Your task to perform on an android device: Open Reddit.com Image 0: 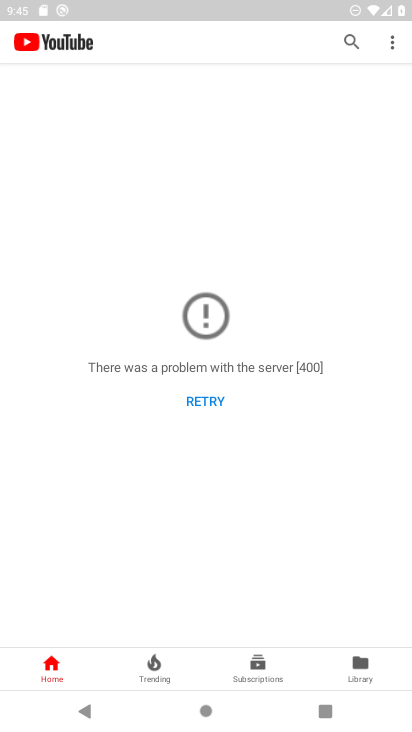
Step 0: press home button
Your task to perform on an android device: Open Reddit.com Image 1: 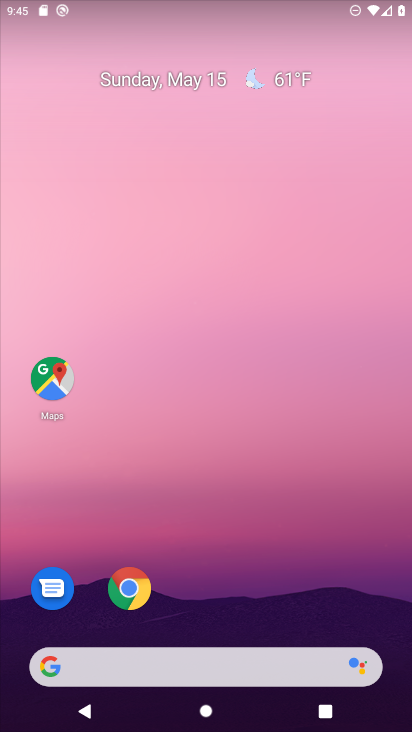
Step 1: click (142, 588)
Your task to perform on an android device: Open Reddit.com Image 2: 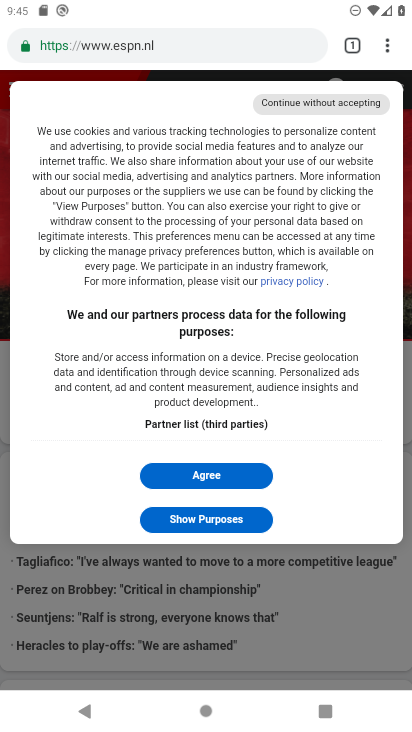
Step 2: click (211, 46)
Your task to perform on an android device: Open Reddit.com Image 3: 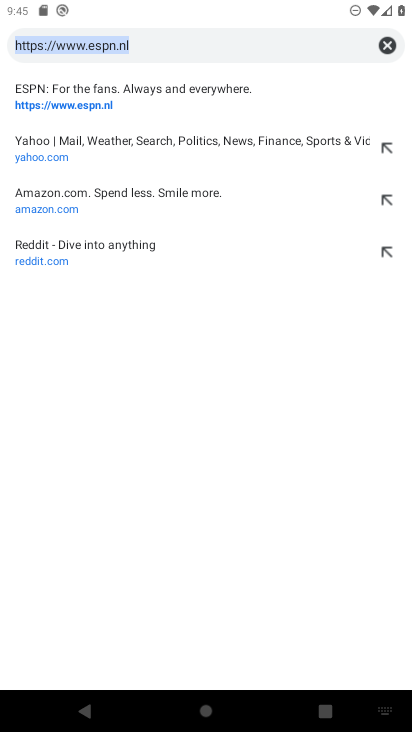
Step 3: type "reddit.com"
Your task to perform on an android device: Open Reddit.com Image 4: 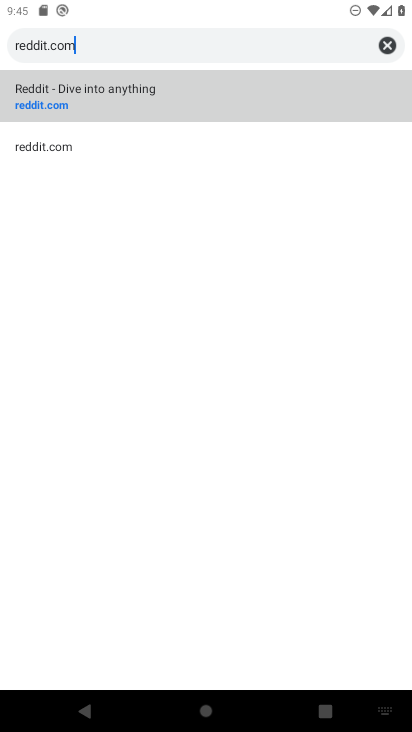
Step 4: click (120, 101)
Your task to perform on an android device: Open Reddit.com Image 5: 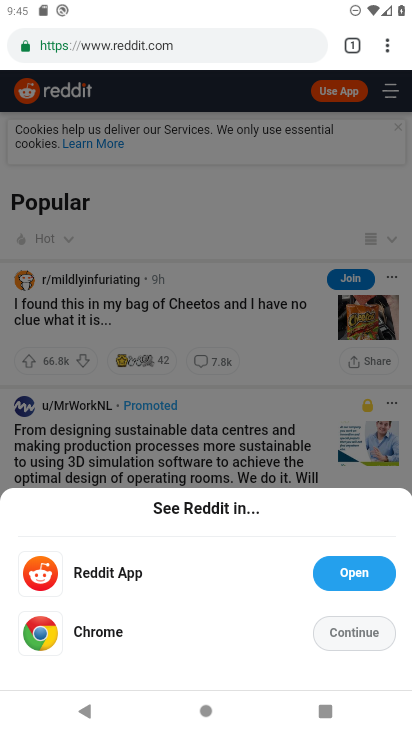
Step 5: task complete